Your task to perform on an android device: see tabs open on other devices in the chrome app Image 0: 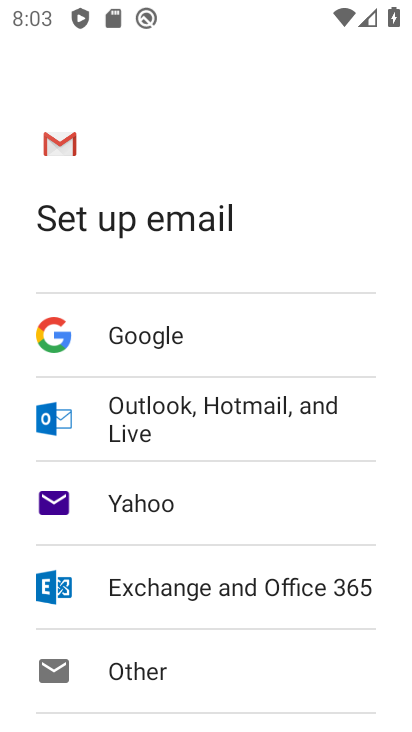
Step 0: press back button
Your task to perform on an android device: see tabs open on other devices in the chrome app Image 1: 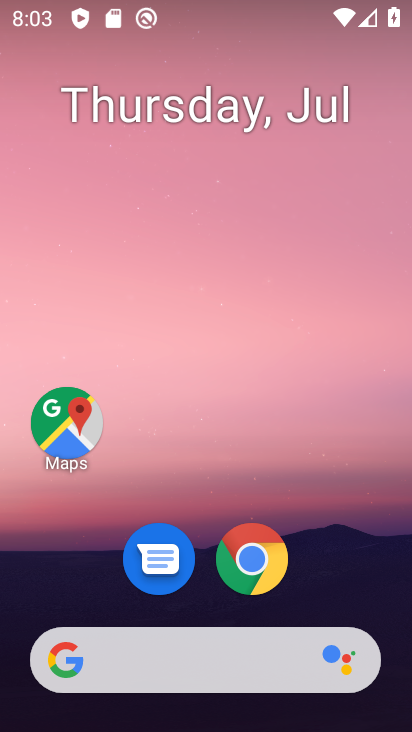
Step 1: drag from (201, 599) to (297, 6)
Your task to perform on an android device: see tabs open on other devices in the chrome app Image 2: 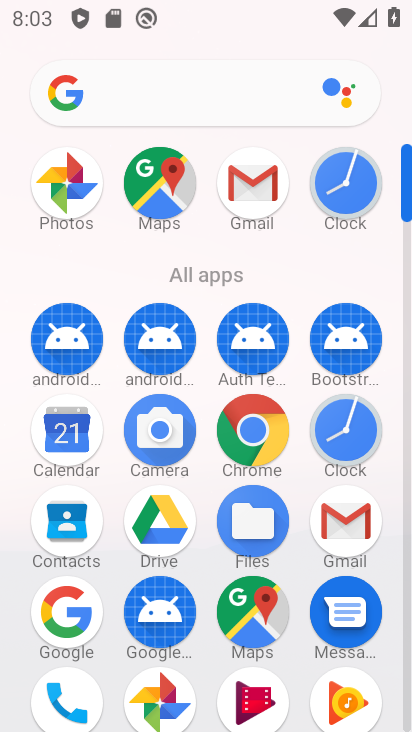
Step 2: drag from (208, 637) to (298, 140)
Your task to perform on an android device: see tabs open on other devices in the chrome app Image 3: 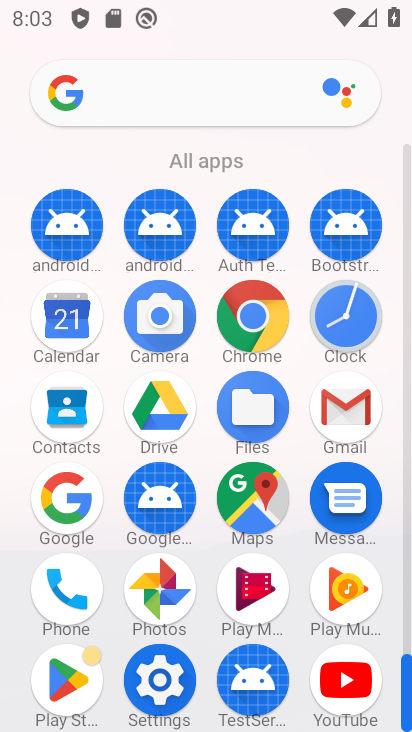
Step 3: click (249, 325)
Your task to perform on an android device: see tabs open on other devices in the chrome app Image 4: 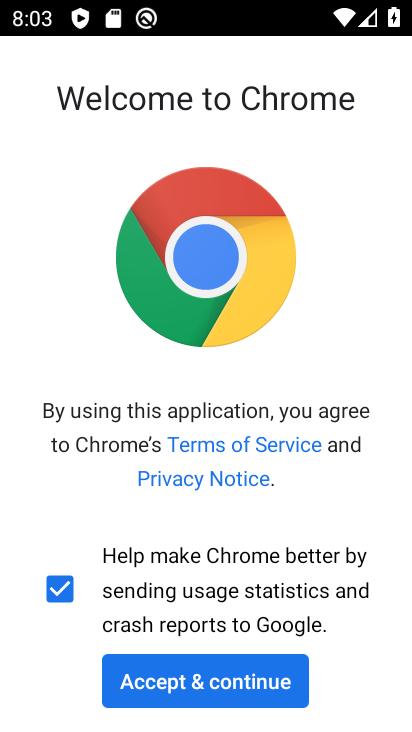
Step 4: click (172, 691)
Your task to perform on an android device: see tabs open on other devices in the chrome app Image 5: 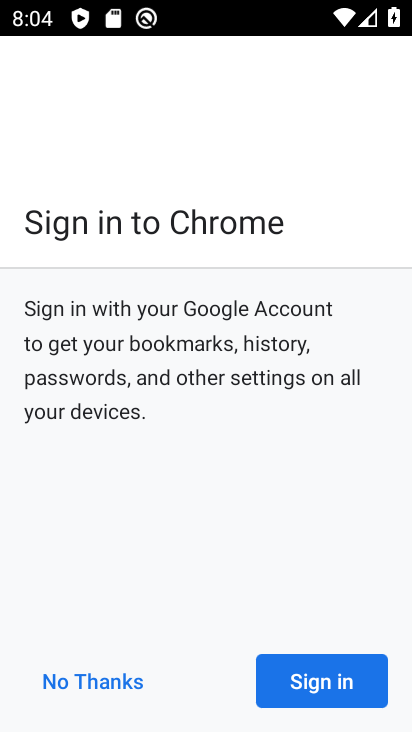
Step 5: click (64, 679)
Your task to perform on an android device: see tabs open on other devices in the chrome app Image 6: 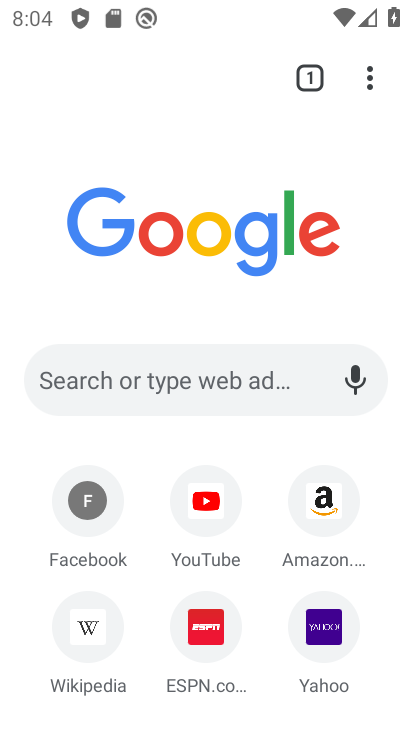
Step 6: task complete